Your task to perform on an android device: show emergency info Image 0: 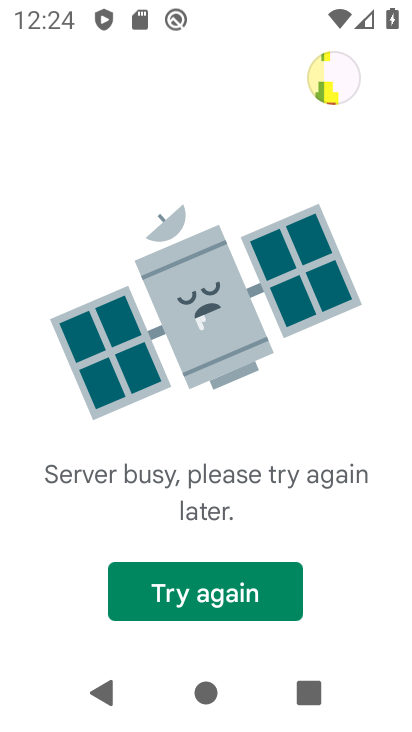
Step 0: press back button
Your task to perform on an android device: show emergency info Image 1: 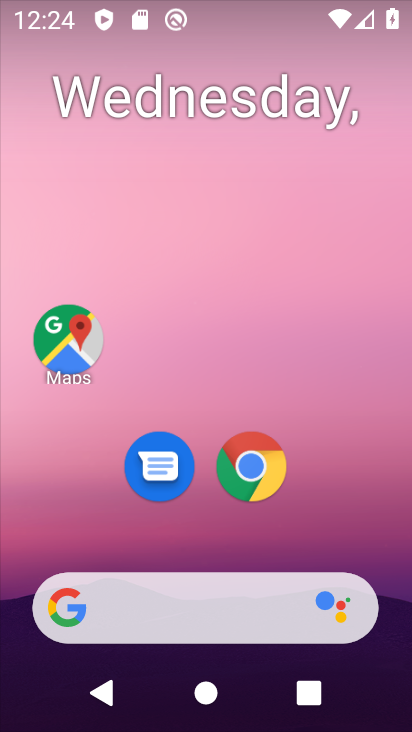
Step 1: drag from (346, 528) to (355, 161)
Your task to perform on an android device: show emergency info Image 2: 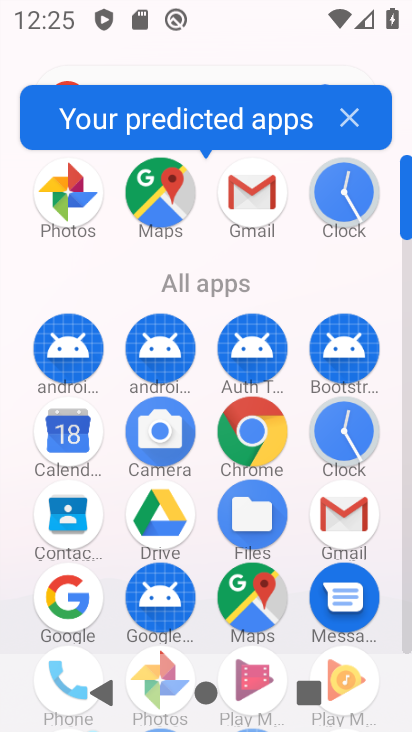
Step 2: drag from (294, 485) to (279, 274)
Your task to perform on an android device: show emergency info Image 3: 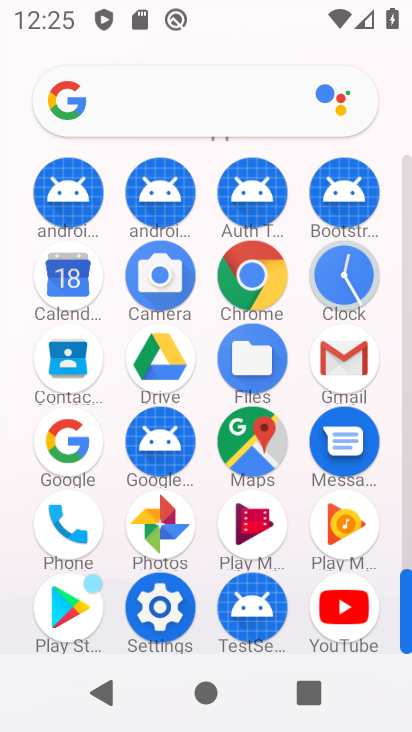
Step 3: click (158, 606)
Your task to perform on an android device: show emergency info Image 4: 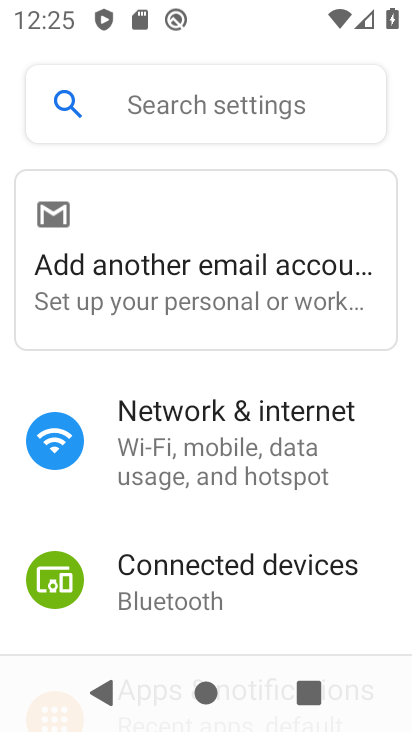
Step 4: drag from (199, 518) to (181, 393)
Your task to perform on an android device: show emergency info Image 5: 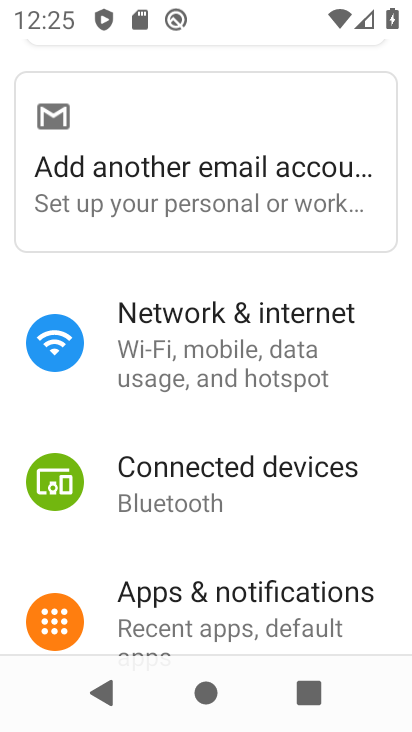
Step 5: drag from (188, 555) to (259, 453)
Your task to perform on an android device: show emergency info Image 6: 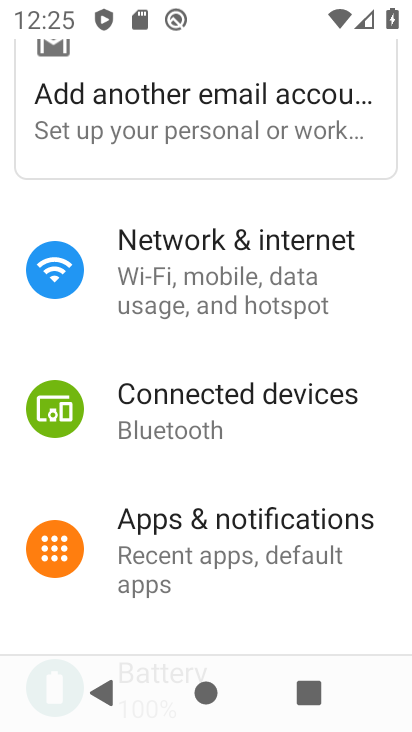
Step 6: drag from (197, 594) to (226, 481)
Your task to perform on an android device: show emergency info Image 7: 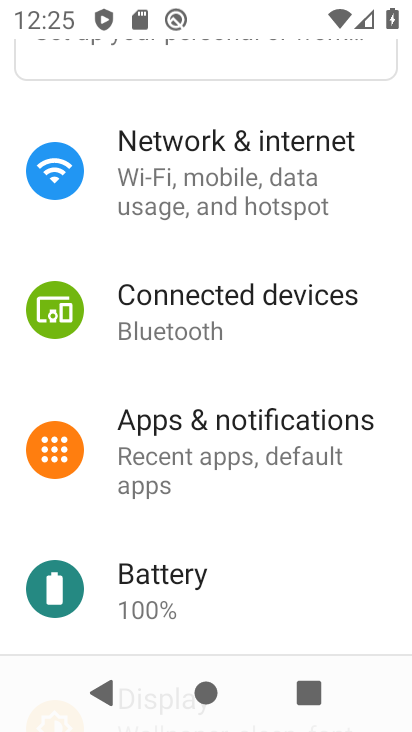
Step 7: drag from (217, 534) to (227, 404)
Your task to perform on an android device: show emergency info Image 8: 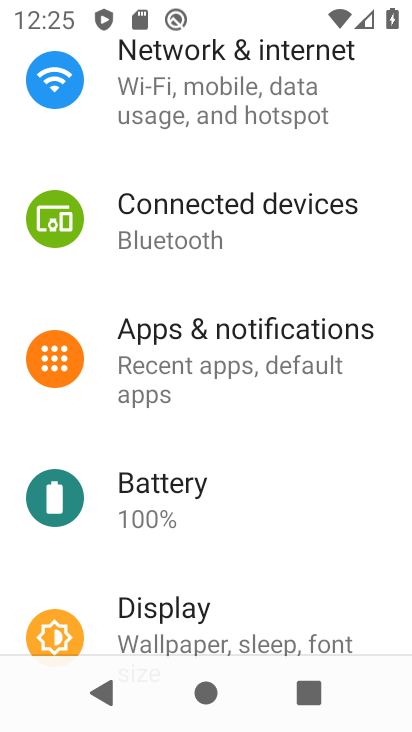
Step 8: drag from (169, 546) to (213, 446)
Your task to perform on an android device: show emergency info Image 9: 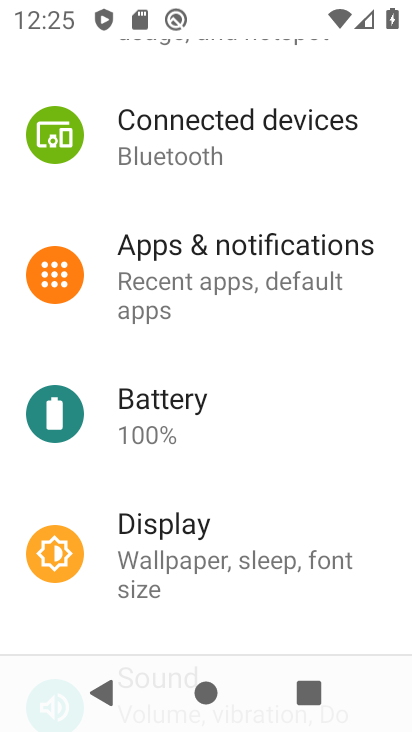
Step 9: drag from (151, 500) to (167, 396)
Your task to perform on an android device: show emergency info Image 10: 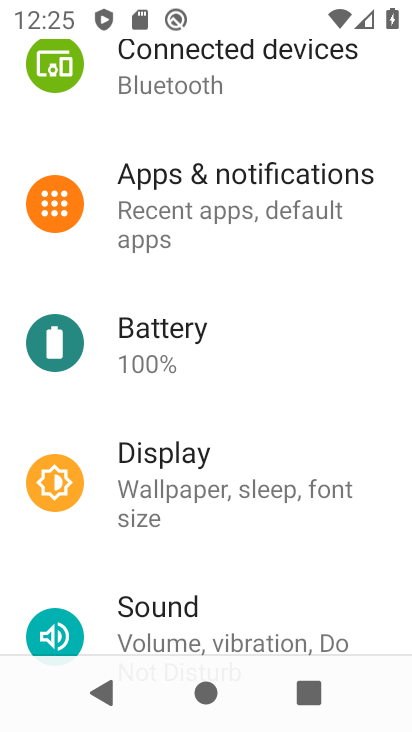
Step 10: drag from (143, 540) to (190, 429)
Your task to perform on an android device: show emergency info Image 11: 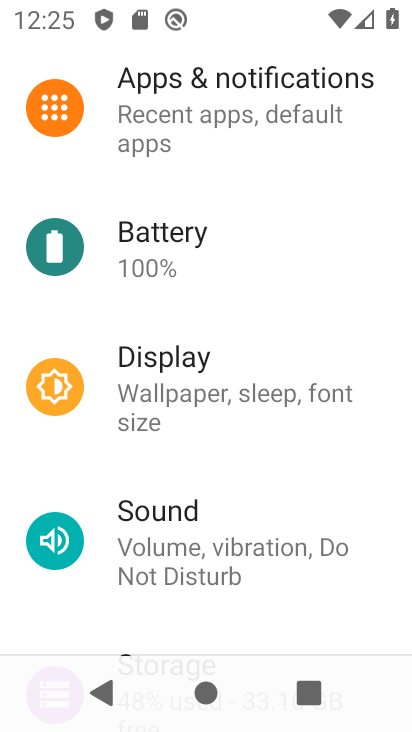
Step 11: drag from (135, 625) to (200, 506)
Your task to perform on an android device: show emergency info Image 12: 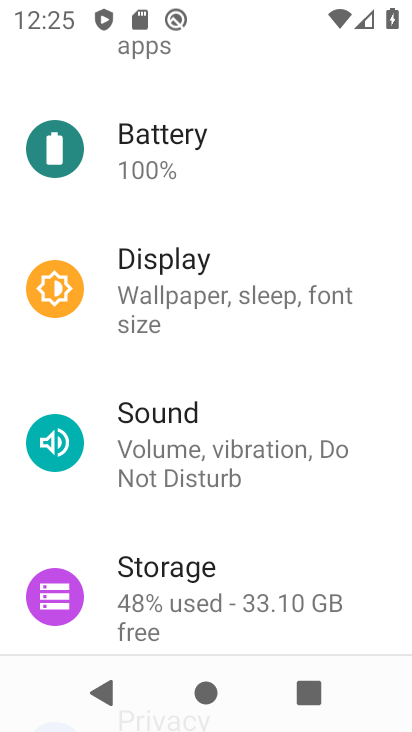
Step 12: drag from (160, 529) to (214, 436)
Your task to perform on an android device: show emergency info Image 13: 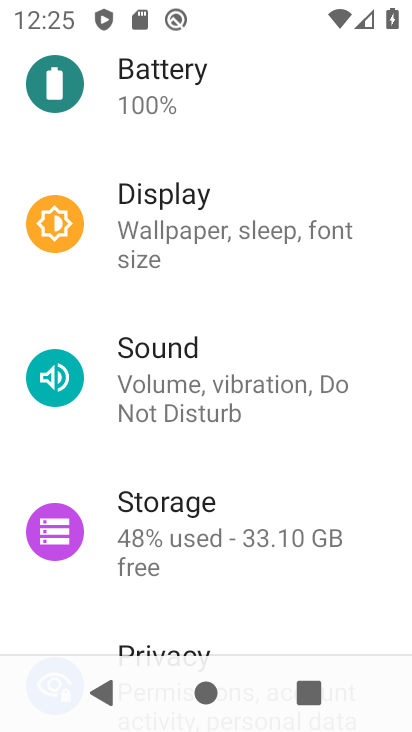
Step 13: drag from (144, 610) to (253, 408)
Your task to perform on an android device: show emergency info Image 14: 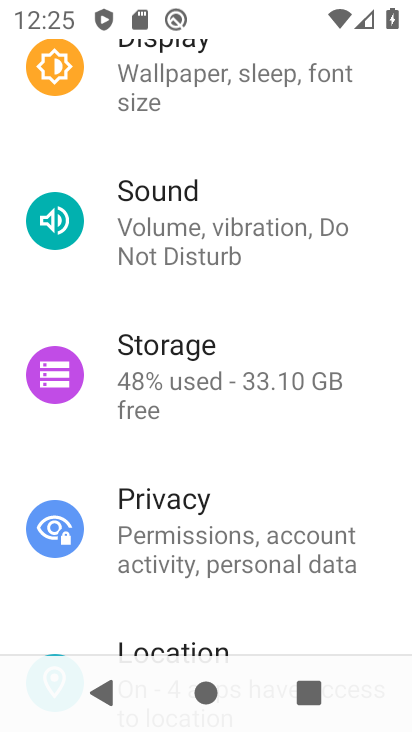
Step 14: drag from (146, 619) to (254, 389)
Your task to perform on an android device: show emergency info Image 15: 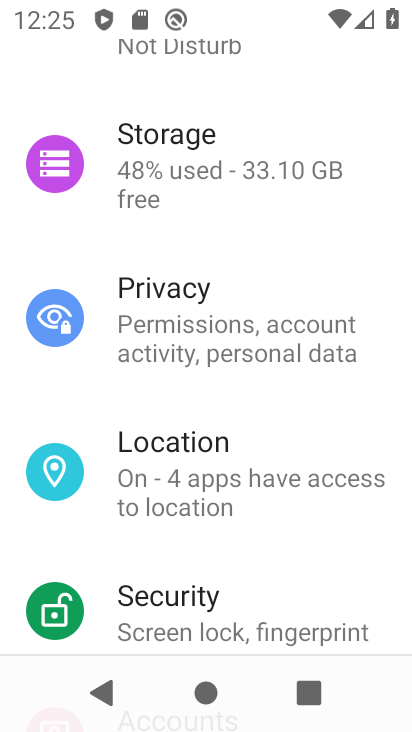
Step 15: drag from (171, 523) to (256, 341)
Your task to perform on an android device: show emergency info Image 16: 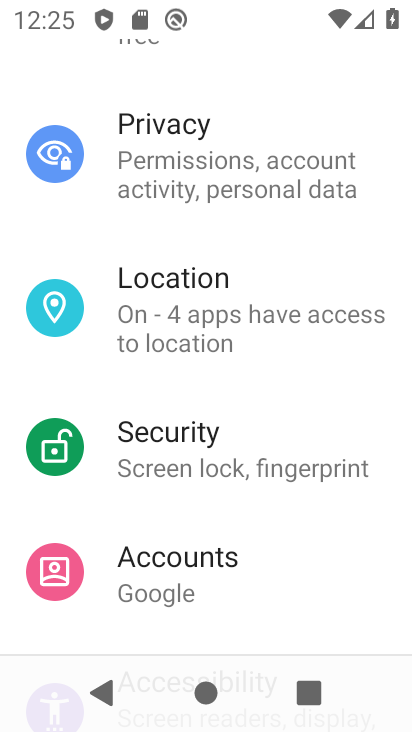
Step 16: drag from (164, 526) to (260, 374)
Your task to perform on an android device: show emergency info Image 17: 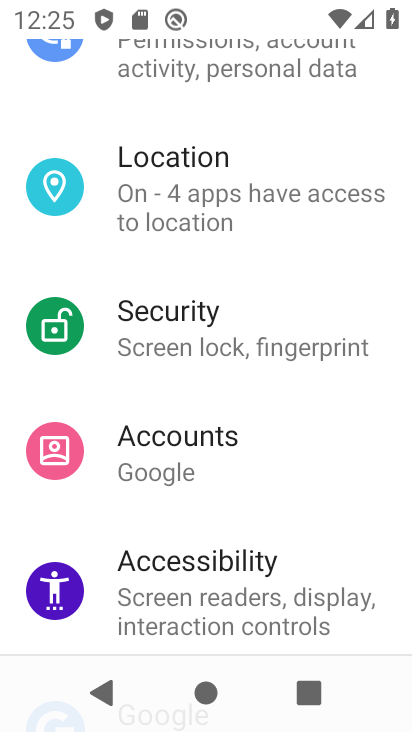
Step 17: drag from (198, 542) to (296, 286)
Your task to perform on an android device: show emergency info Image 18: 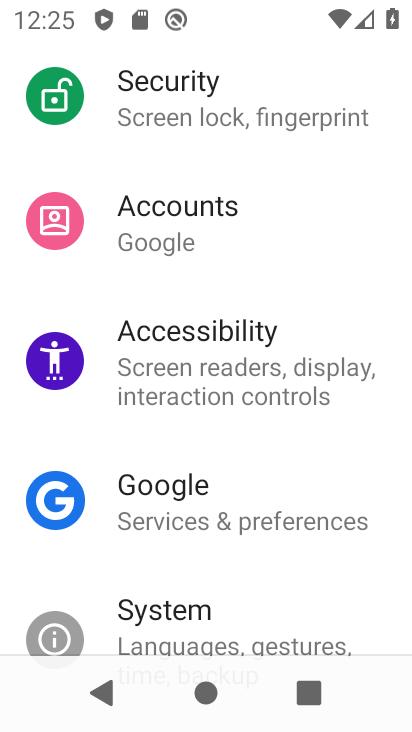
Step 18: drag from (183, 549) to (279, 327)
Your task to perform on an android device: show emergency info Image 19: 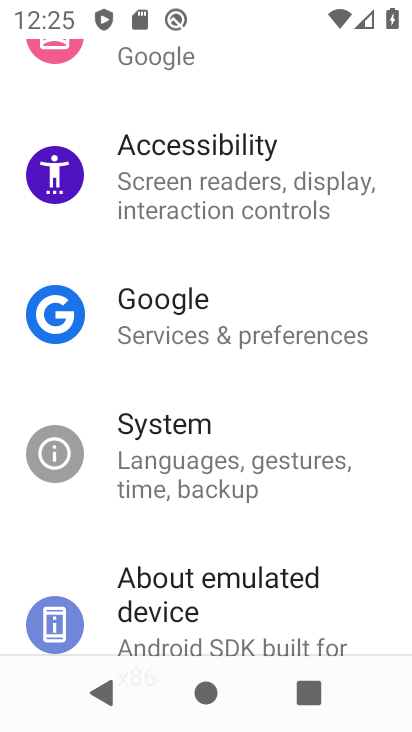
Step 19: click (185, 583)
Your task to perform on an android device: show emergency info Image 20: 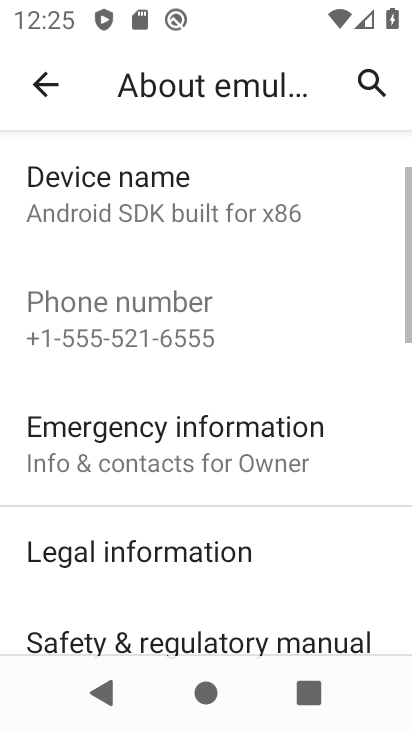
Step 20: click (164, 437)
Your task to perform on an android device: show emergency info Image 21: 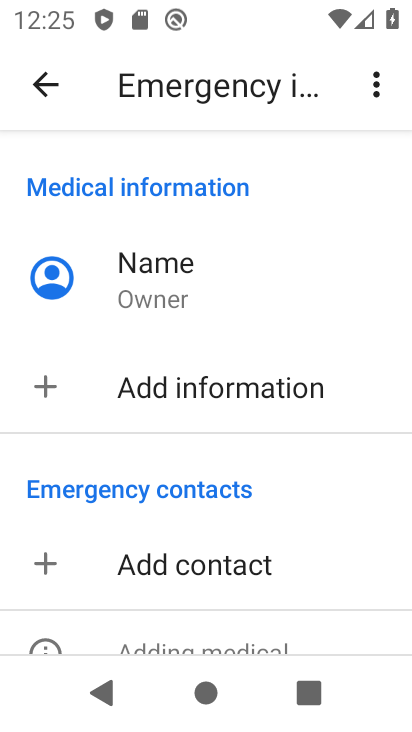
Step 21: task complete